Your task to perform on an android device: Add "beats solo 3" to the cart on target.com Image 0: 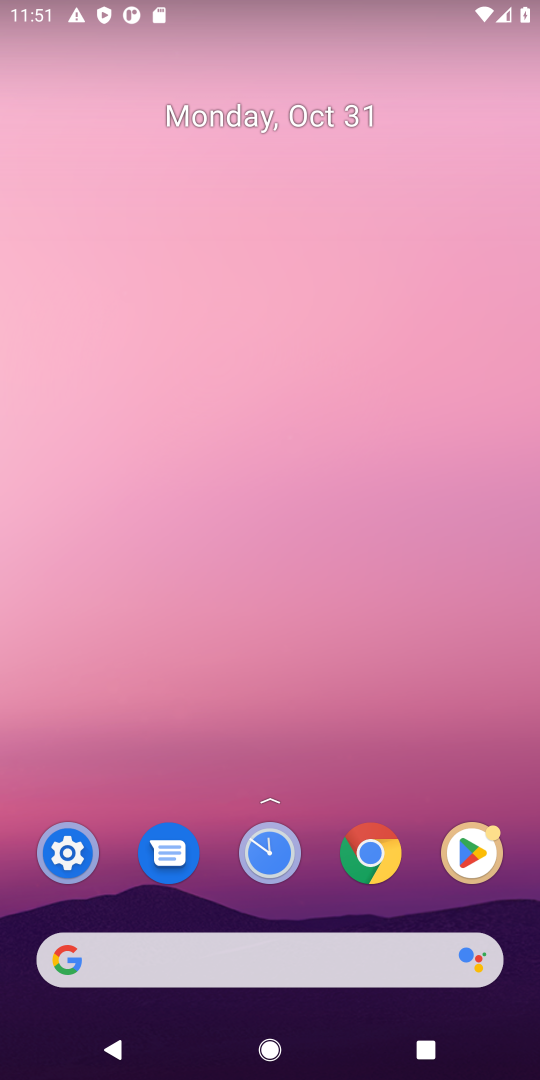
Step 0: click (170, 974)
Your task to perform on an android device: Add "beats solo 3" to the cart on target.com Image 1: 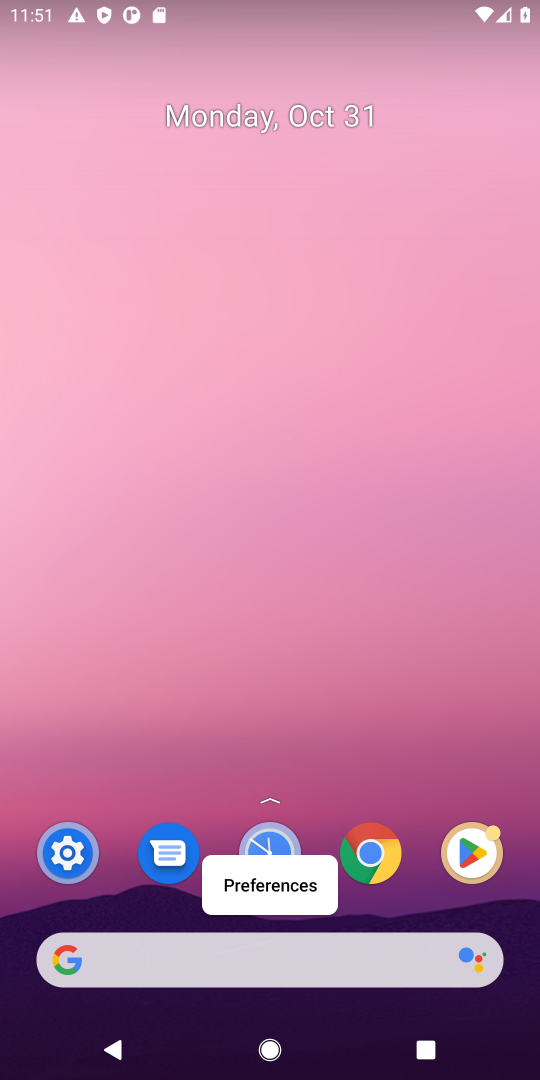
Step 1: click (170, 974)
Your task to perform on an android device: Add "beats solo 3" to the cart on target.com Image 2: 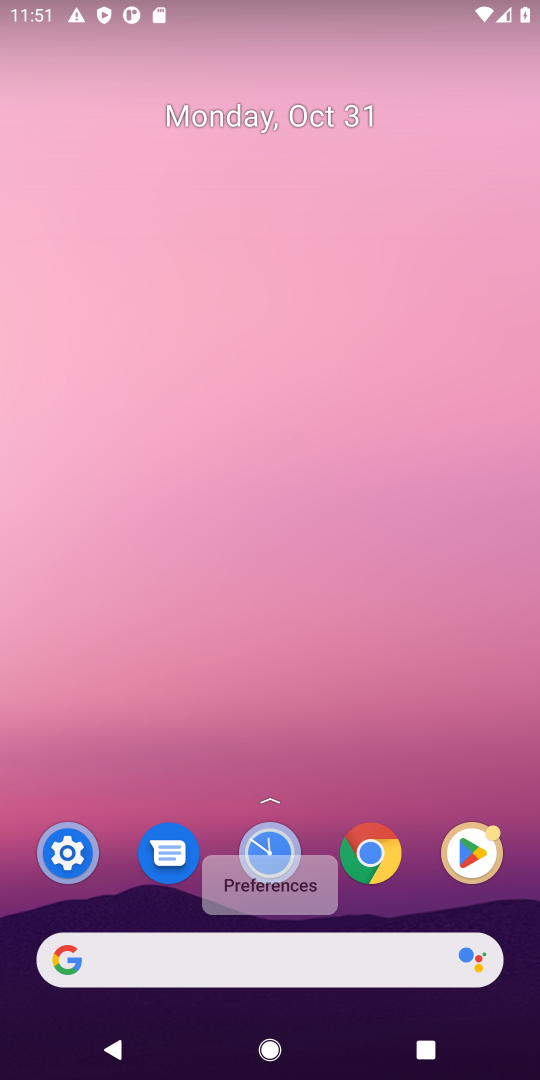
Step 2: click (172, 979)
Your task to perform on an android device: Add "beats solo 3" to the cart on target.com Image 3: 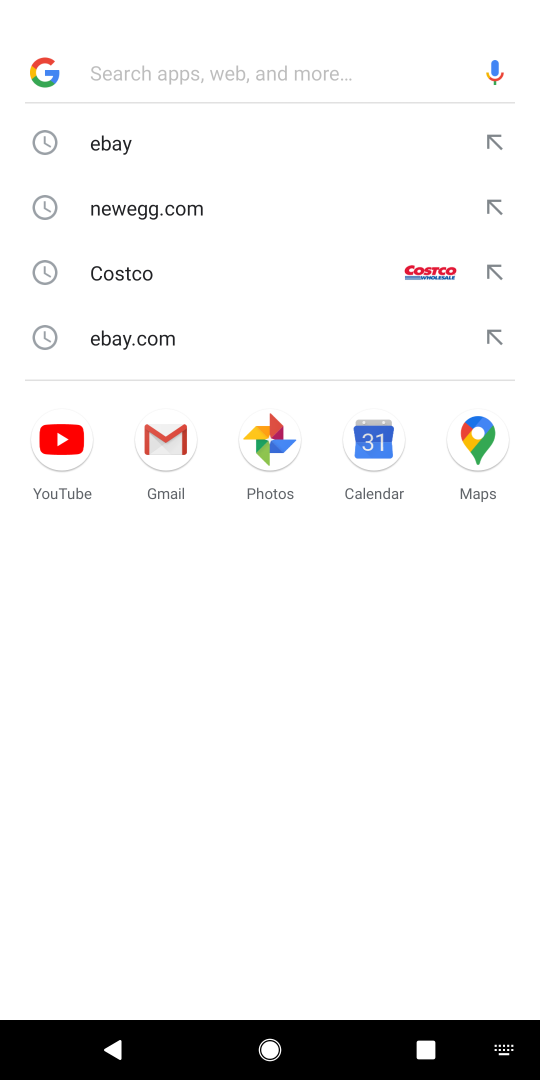
Step 3: type "target.com"
Your task to perform on an android device: Add "beats solo 3" to the cart on target.com Image 4: 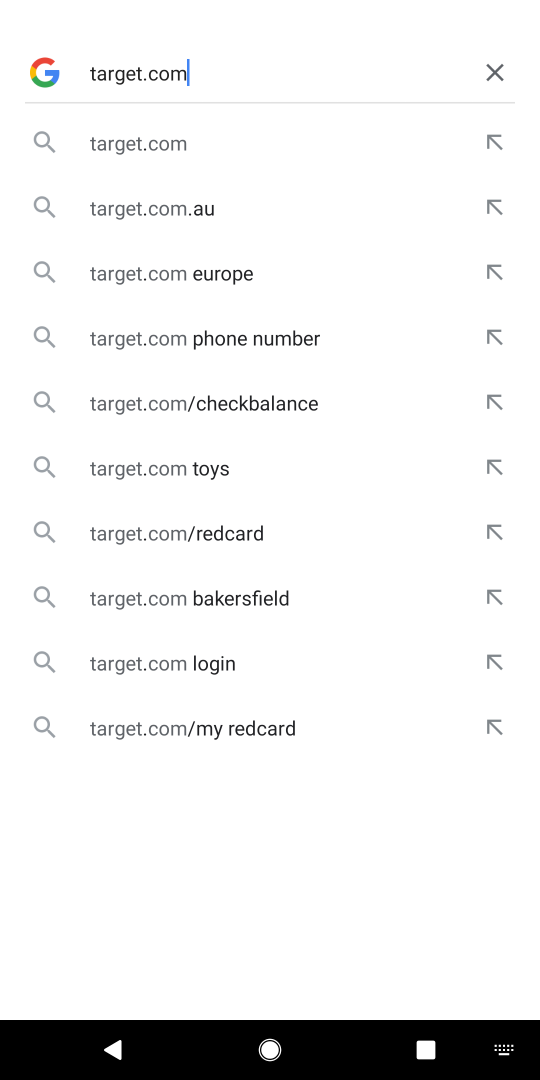
Step 4: type ""
Your task to perform on an android device: Add "beats solo 3" to the cart on target.com Image 5: 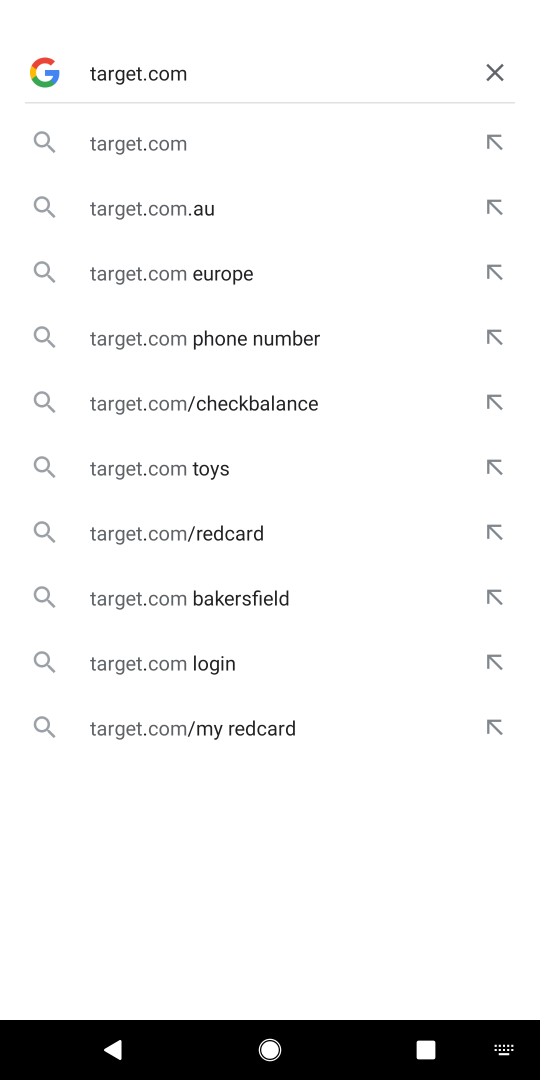
Step 5: type ""
Your task to perform on an android device: Add "beats solo 3" to the cart on target.com Image 6: 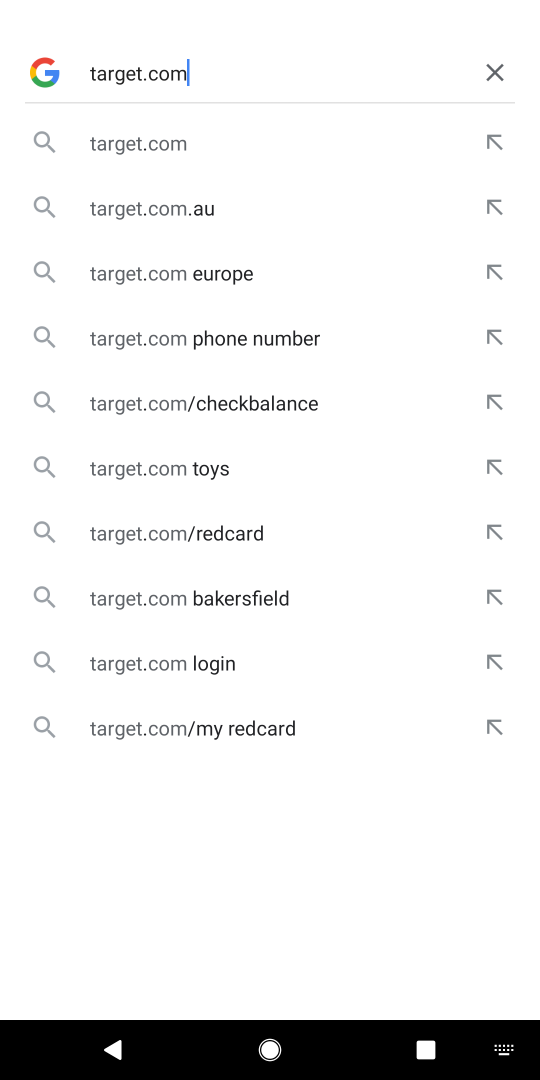
Step 6: press enter
Your task to perform on an android device: Add "beats solo 3" to the cart on target.com Image 7: 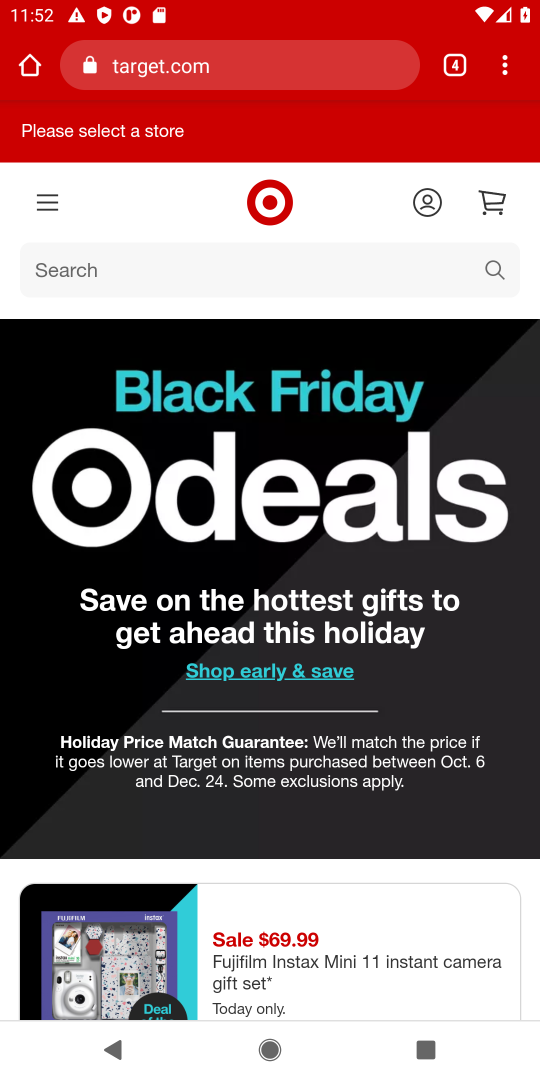
Step 7: drag from (396, 912) to (379, 1055)
Your task to perform on an android device: Add "beats solo 3" to the cart on target.com Image 8: 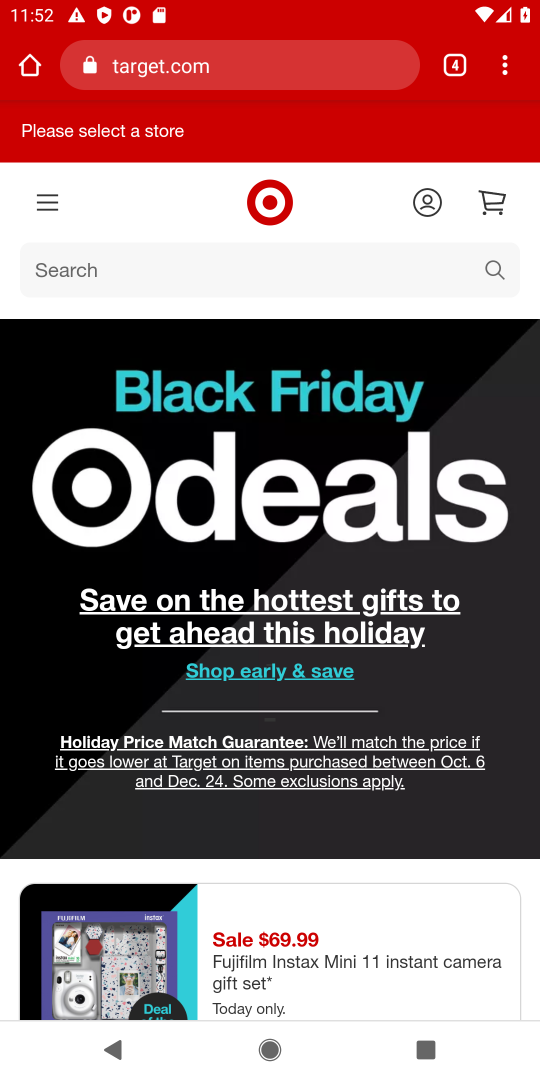
Step 8: click (136, 261)
Your task to perform on an android device: Add "beats solo 3" to the cart on target.com Image 9: 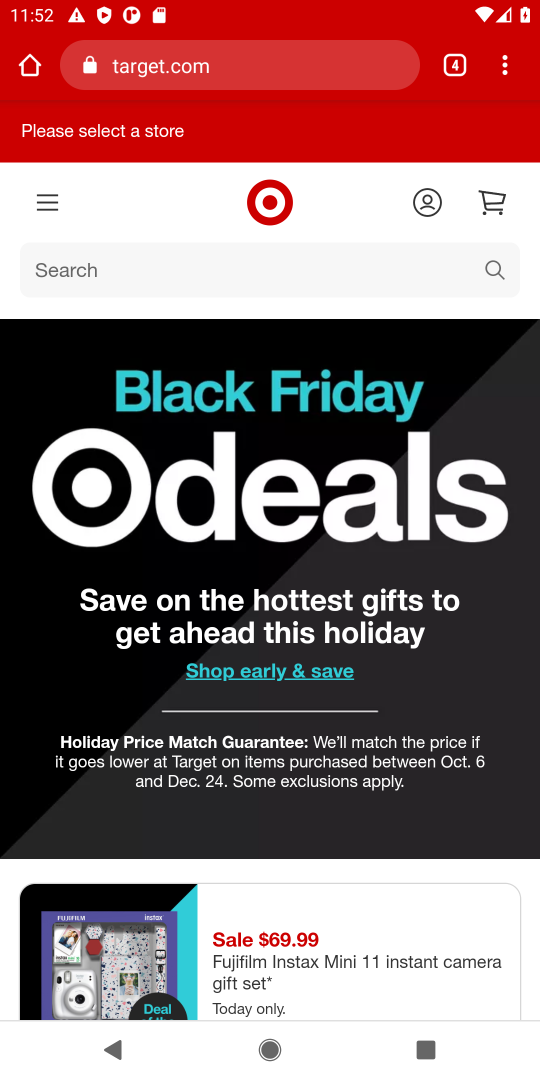
Step 9: click (76, 272)
Your task to perform on an android device: Add "beats solo 3" to the cart on target.com Image 10: 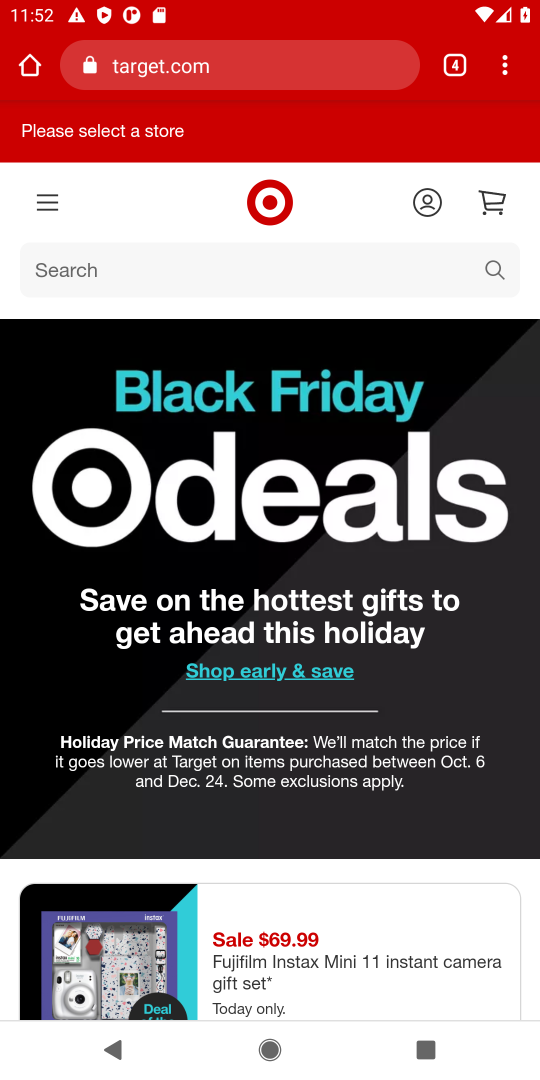
Step 10: click (76, 272)
Your task to perform on an android device: Add "beats solo 3" to the cart on target.com Image 11: 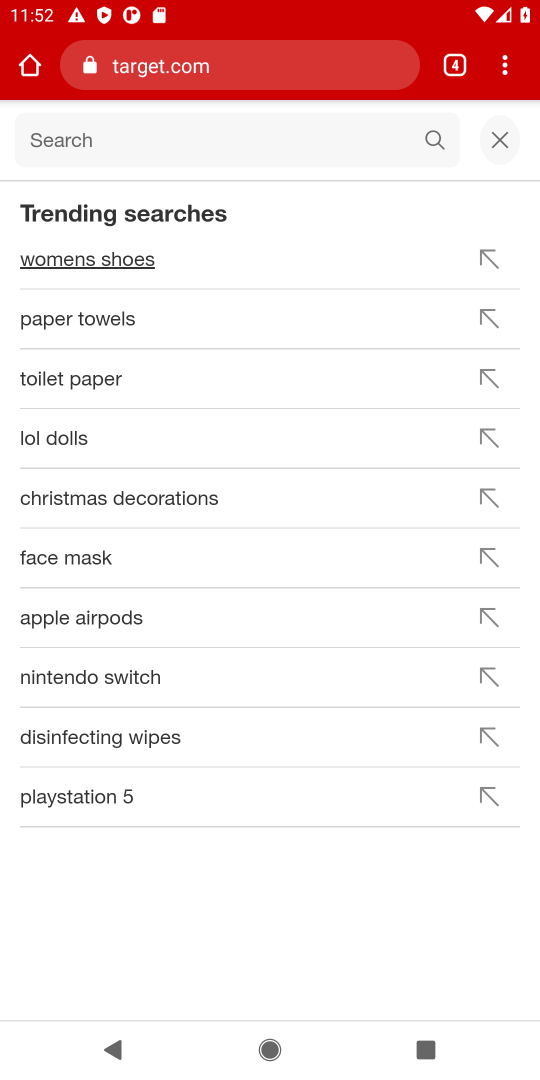
Step 11: click (111, 132)
Your task to perform on an android device: Add "beats solo 3" to the cart on target.com Image 12: 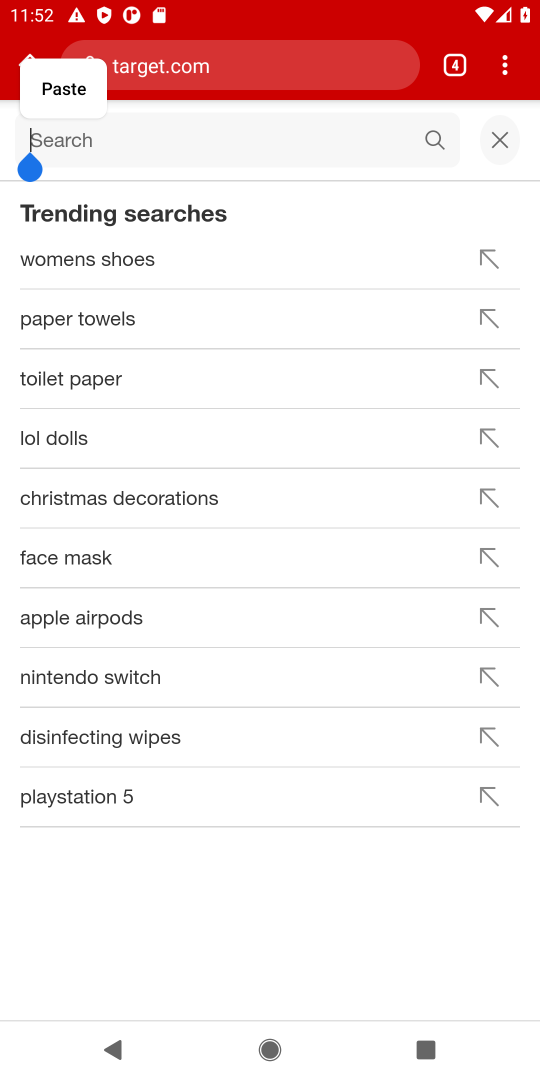
Step 12: type "beats solo 3"
Your task to perform on an android device: Add "beats solo 3" to the cart on target.com Image 13: 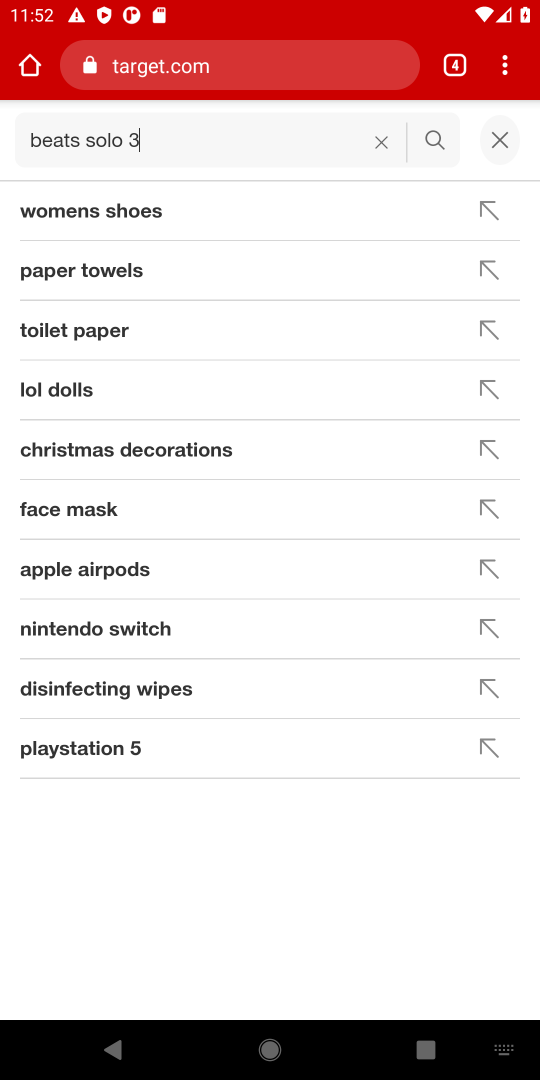
Step 13: type ""
Your task to perform on an android device: Add "beats solo 3" to the cart on target.com Image 14: 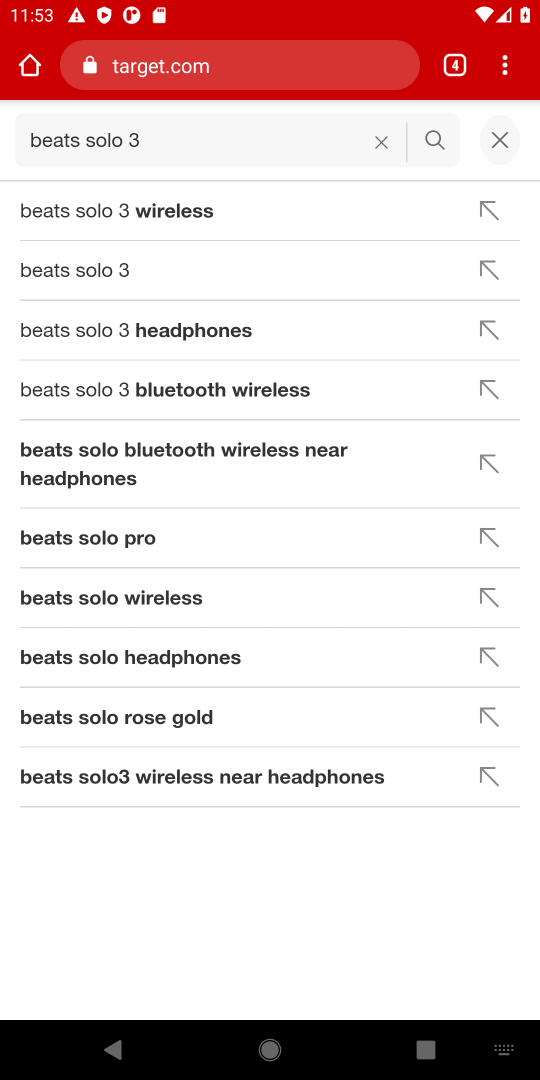
Step 14: press enter
Your task to perform on an android device: Add "beats solo 3" to the cart on target.com Image 15: 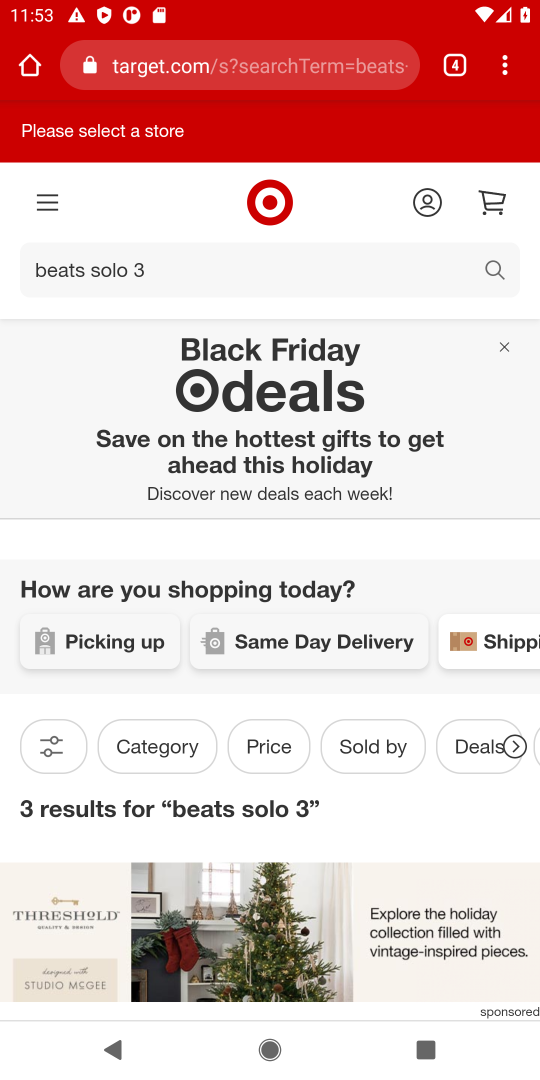
Step 15: drag from (291, 823) to (287, 534)
Your task to perform on an android device: Add "beats solo 3" to the cart on target.com Image 16: 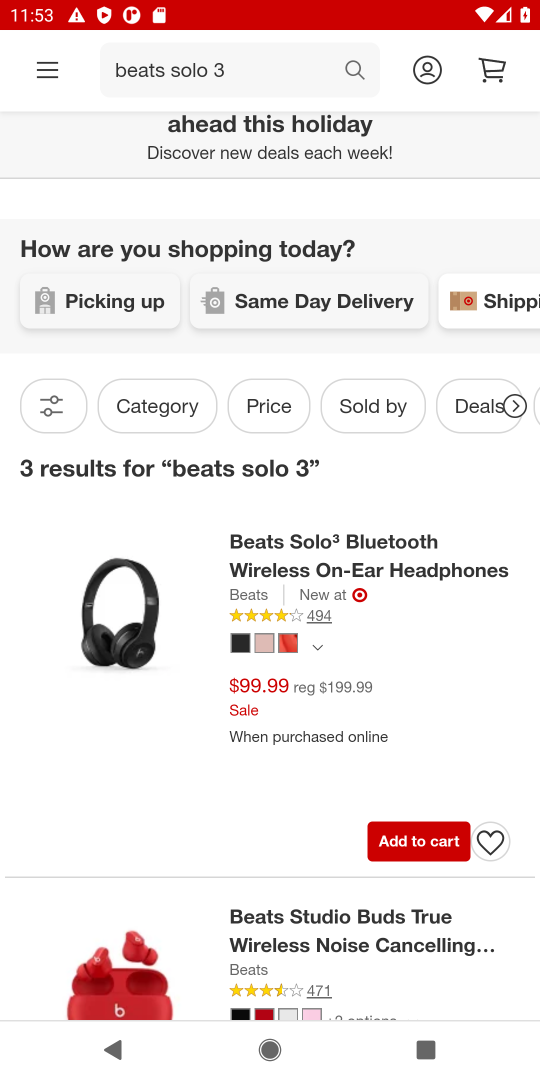
Step 16: click (281, 555)
Your task to perform on an android device: Add "beats solo 3" to the cart on target.com Image 17: 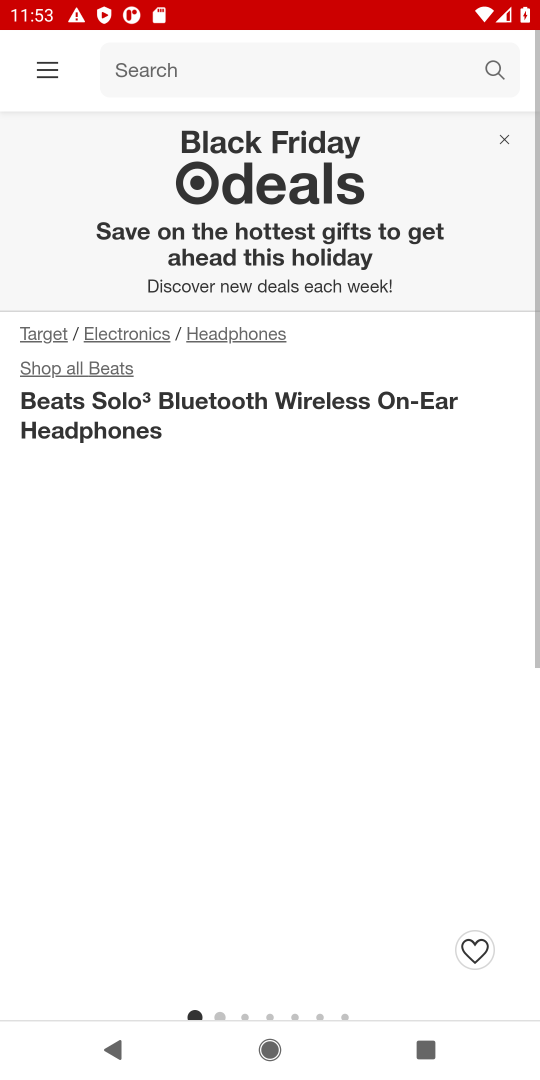
Step 17: click (409, 825)
Your task to perform on an android device: Add "beats solo 3" to the cart on target.com Image 18: 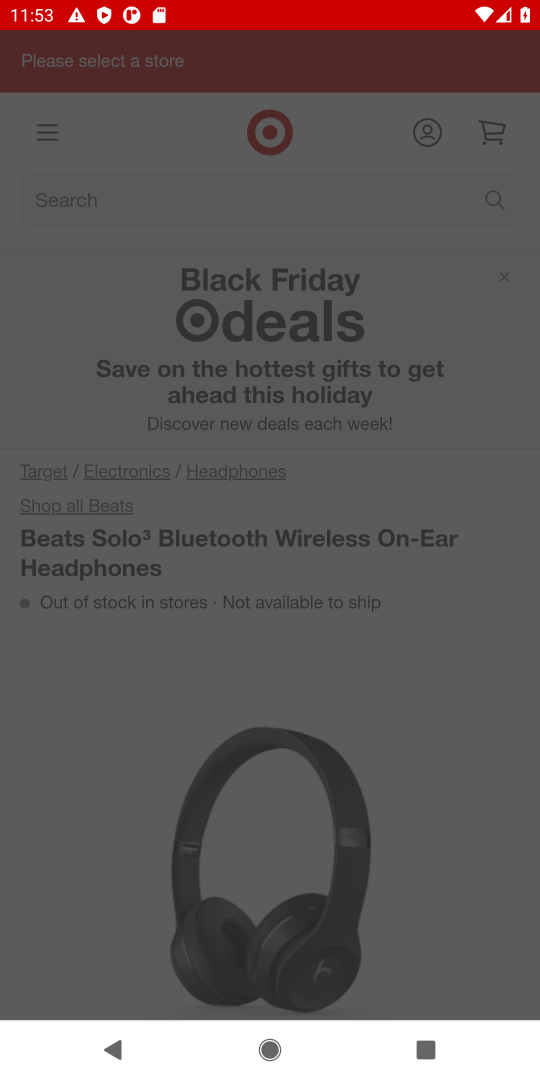
Step 18: drag from (401, 826) to (377, 564)
Your task to perform on an android device: Add "beats solo 3" to the cart on target.com Image 19: 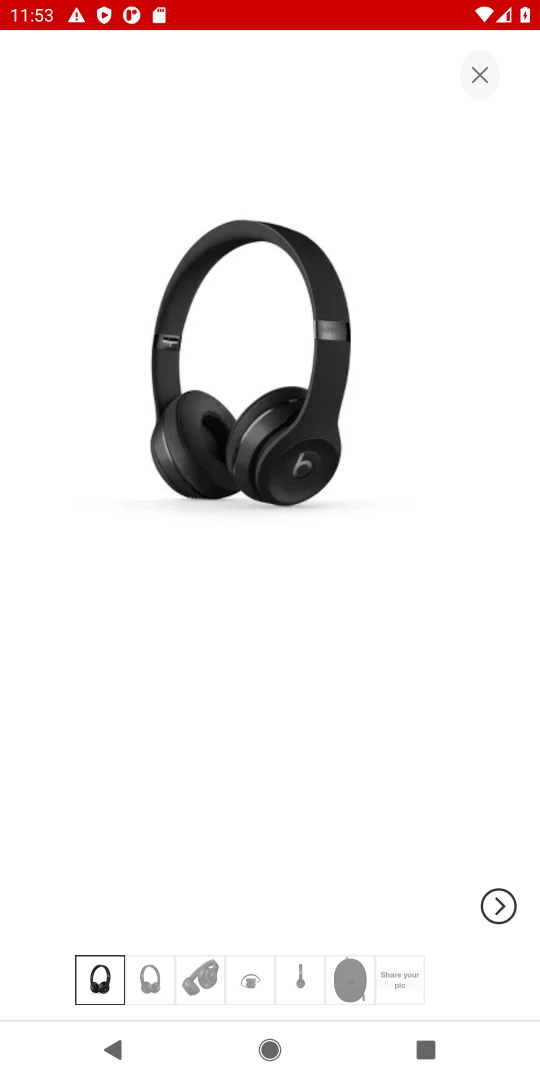
Step 19: click (486, 67)
Your task to perform on an android device: Add "beats solo 3" to the cart on target.com Image 20: 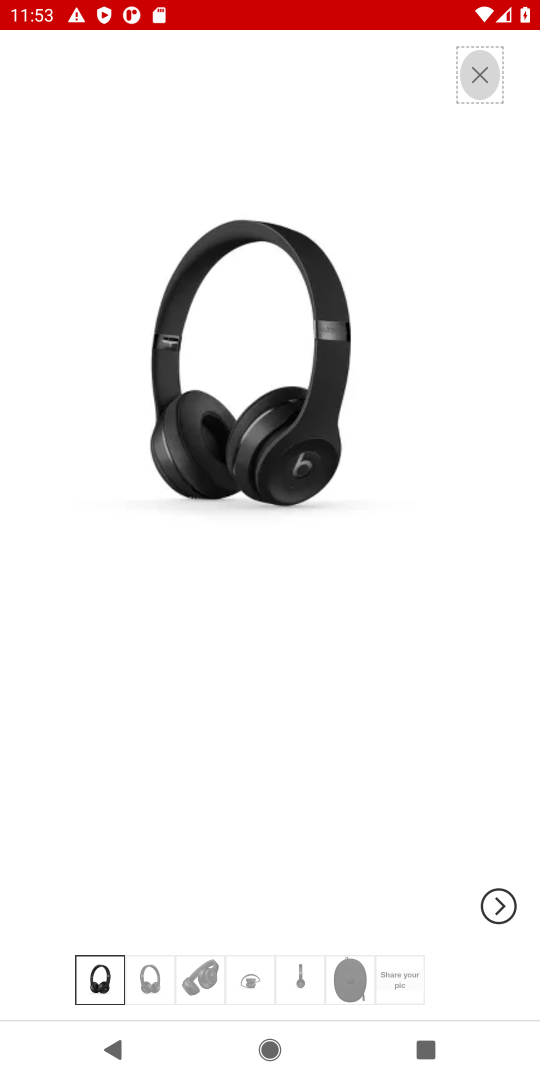
Step 20: click (474, 77)
Your task to perform on an android device: Add "beats solo 3" to the cart on target.com Image 21: 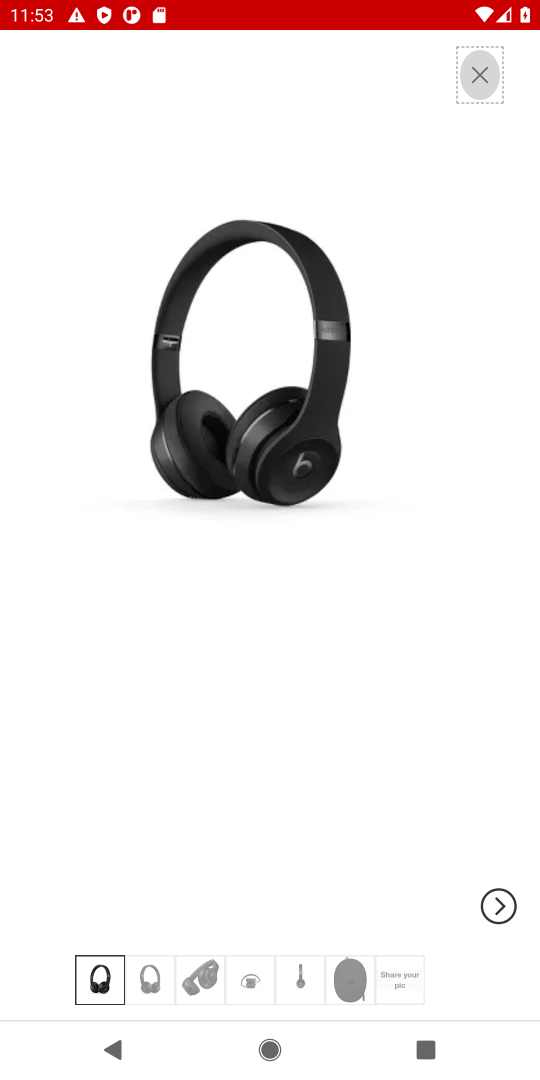
Step 21: click (476, 76)
Your task to perform on an android device: Add "beats solo 3" to the cart on target.com Image 22: 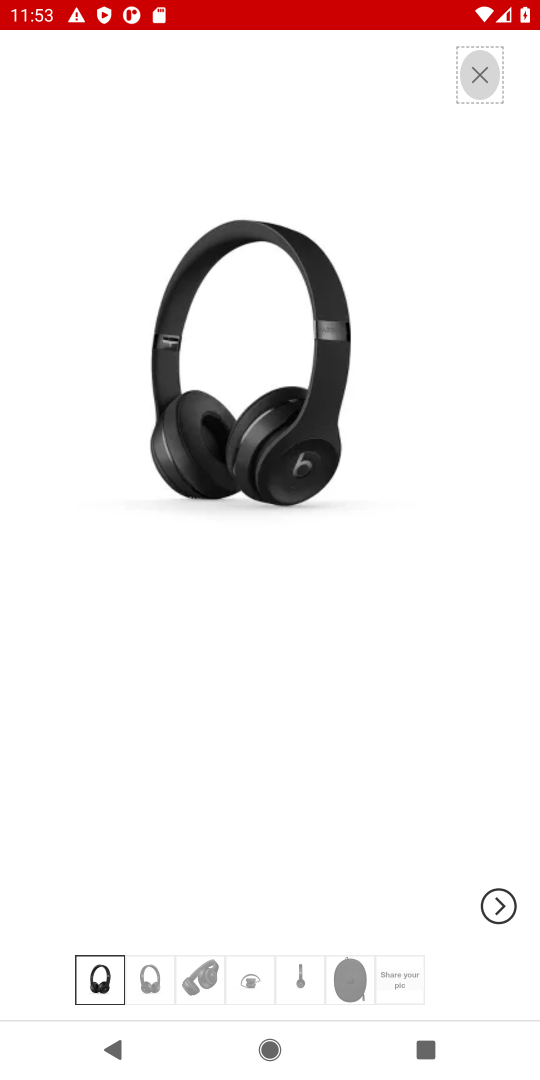
Step 22: click (511, 909)
Your task to perform on an android device: Add "beats solo 3" to the cart on target.com Image 23: 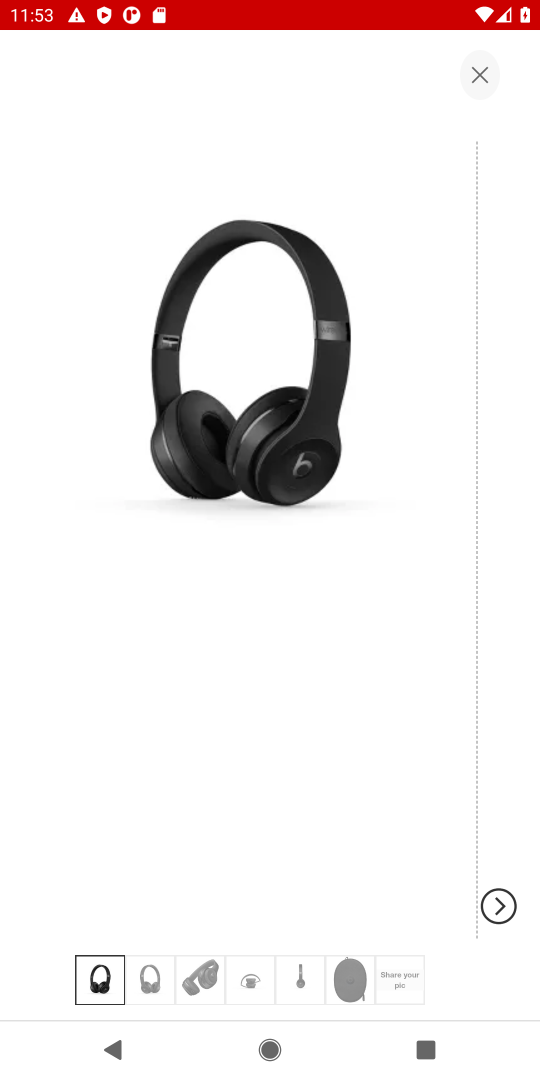
Step 23: click (502, 904)
Your task to perform on an android device: Add "beats solo 3" to the cart on target.com Image 24: 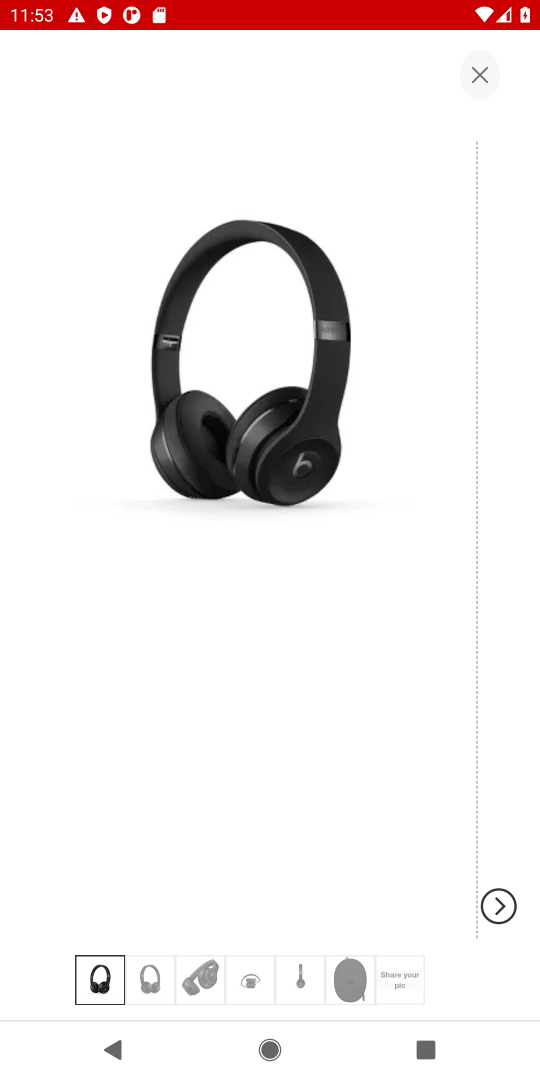
Step 24: click (502, 904)
Your task to perform on an android device: Add "beats solo 3" to the cart on target.com Image 25: 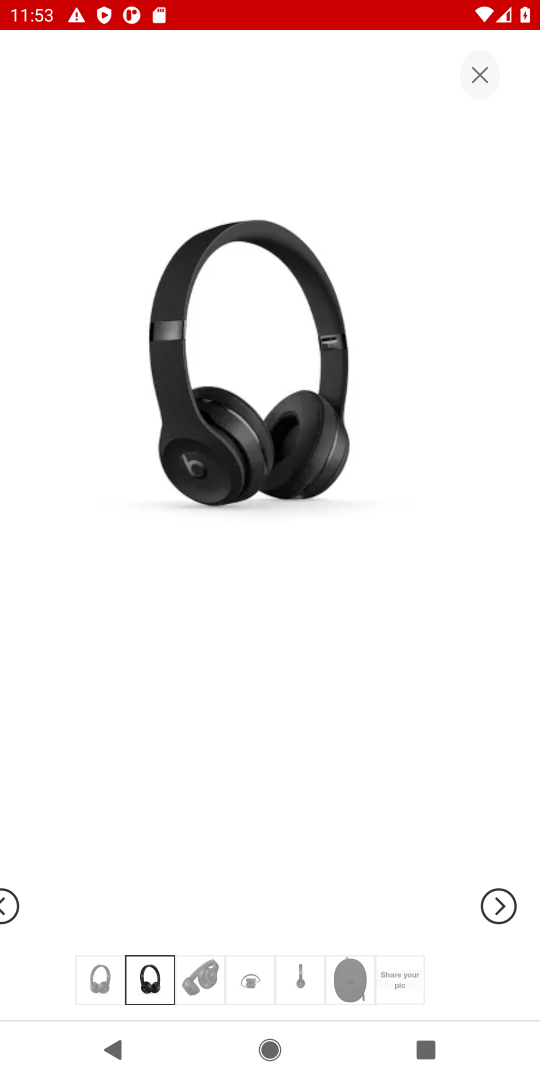
Step 25: click (502, 904)
Your task to perform on an android device: Add "beats solo 3" to the cart on target.com Image 26: 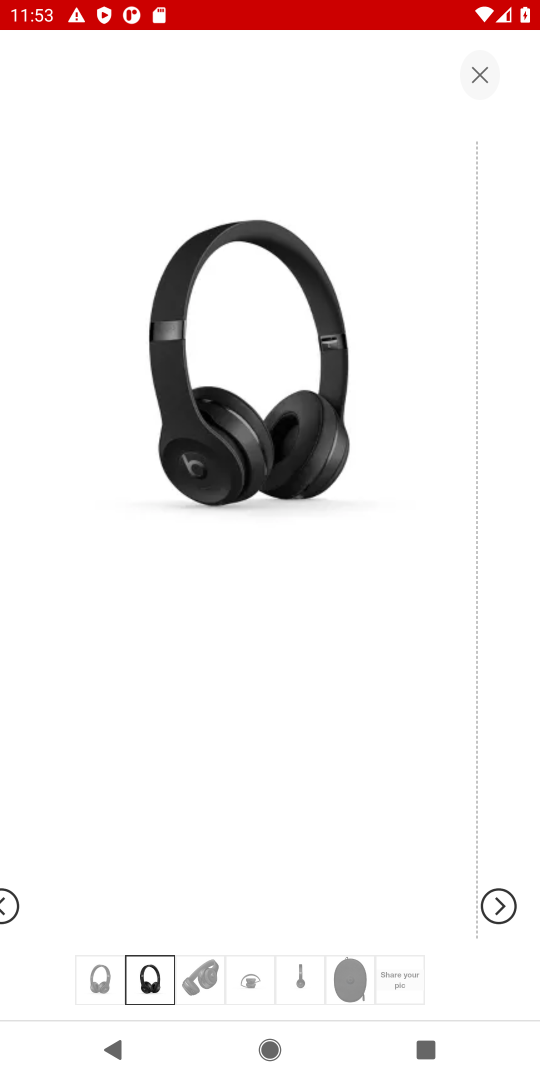
Step 26: click (502, 904)
Your task to perform on an android device: Add "beats solo 3" to the cart on target.com Image 27: 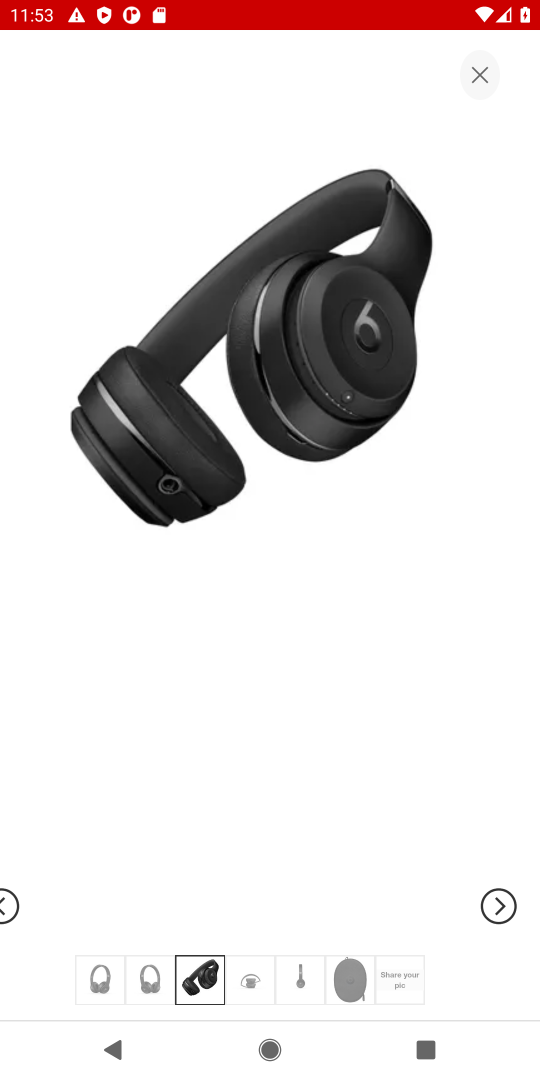
Step 27: click (477, 85)
Your task to perform on an android device: Add "beats solo 3" to the cart on target.com Image 28: 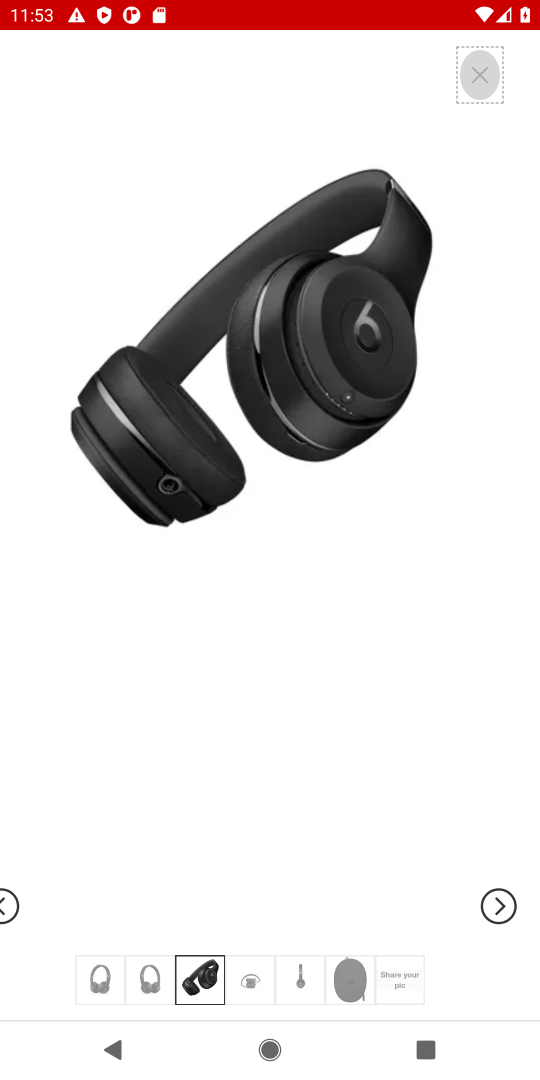
Step 28: click (478, 74)
Your task to perform on an android device: Add "beats solo 3" to the cart on target.com Image 29: 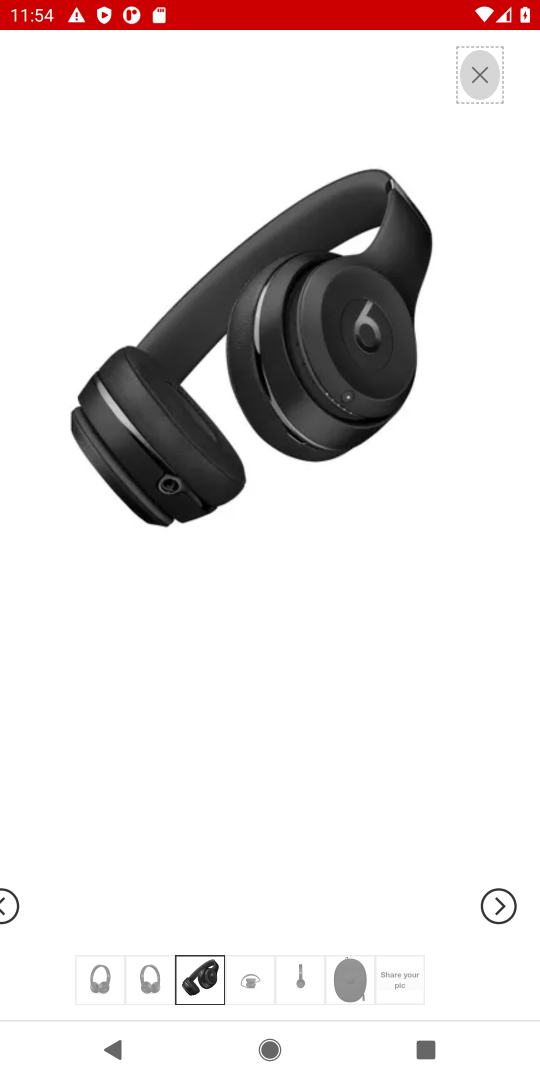
Step 29: click (480, 80)
Your task to perform on an android device: Add "beats solo 3" to the cart on target.com Image 30: 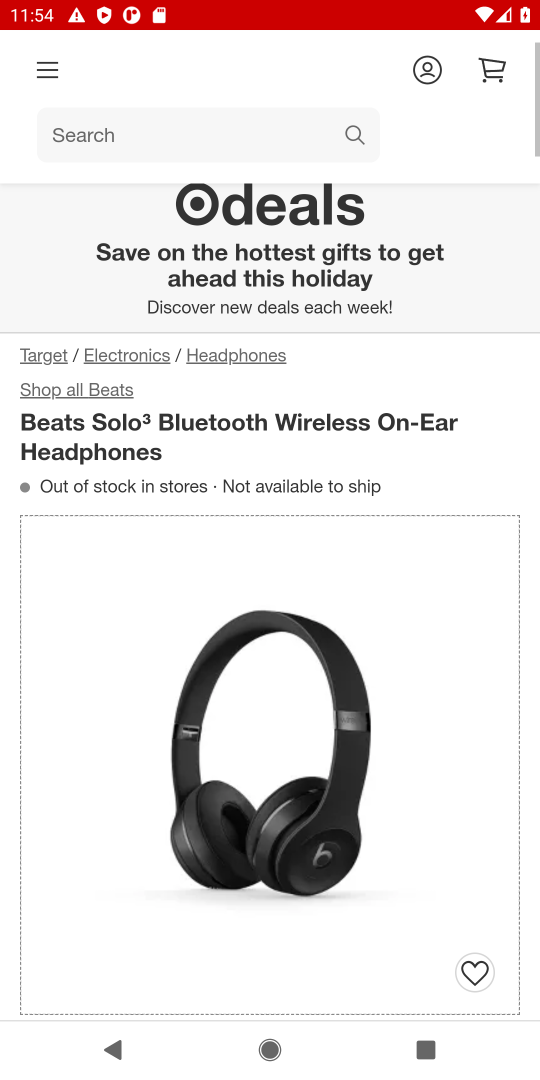
Step 30: task complete